Your task to perform on an android device: When is my next meeting? Image 0: 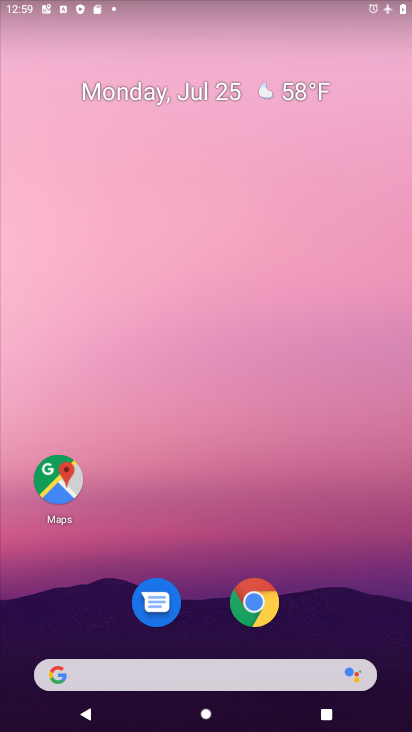
Step 0: drag from (191, 449) to (165, 10)
Your task to perform on an android device: When is my next meeting? Image 1: 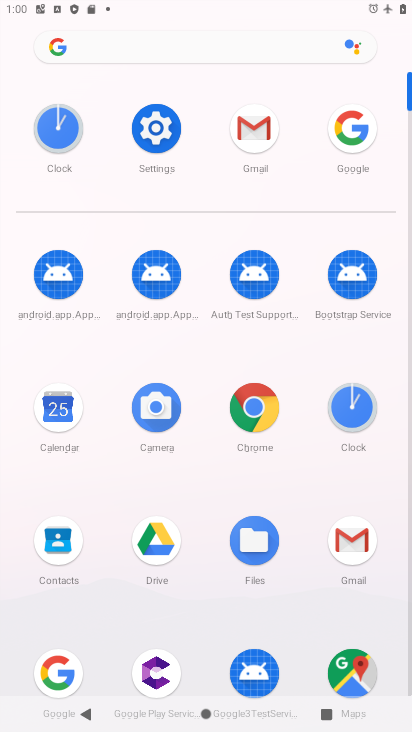
Step 1: drag from (189, 596) to (174, 288)
Your task to perform on an android device: When is my next meeting? Image 2: 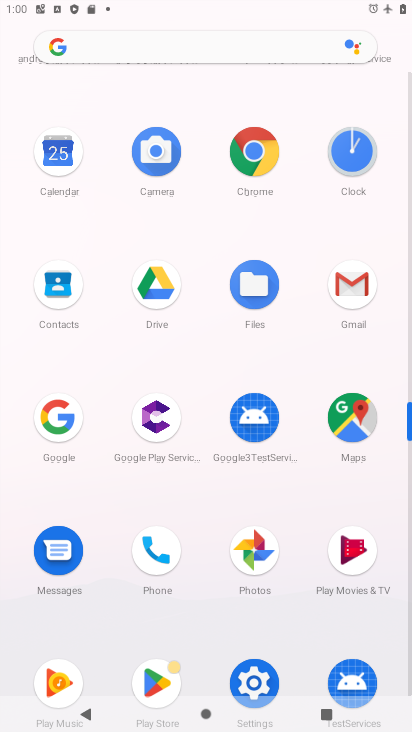
Step 2: click (45, 148)
Your task to perform on an android device: When is my next meeting? Image 3: 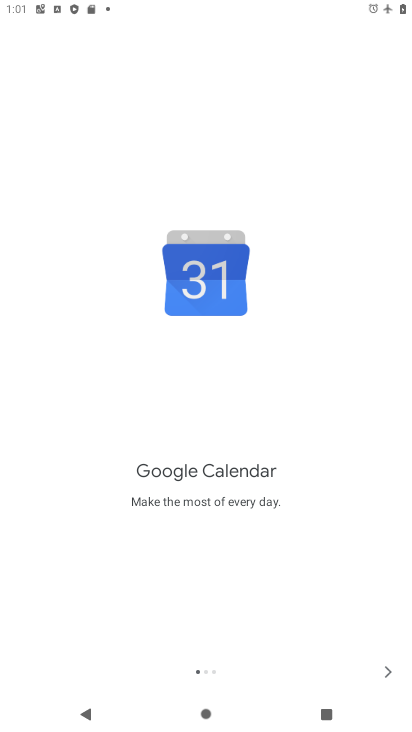
Step 3: click (376, 664)
Your task to perform on an android device: When is my next meeting? Image 4: 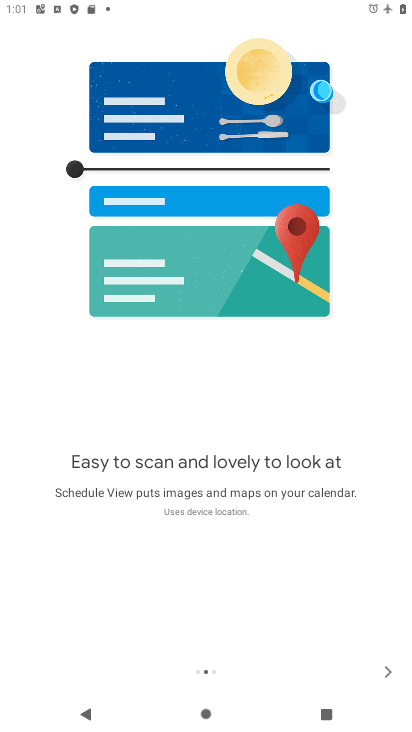
Step 4: click (389, 664)
Your task to perform on an android device: When is my next meeting? Image 5: 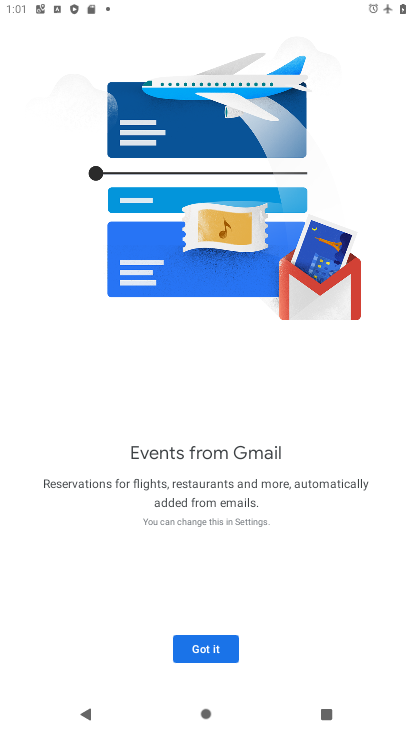
Step 5: click (220, 649)
Your task to perform on an android device: When is my next meeting? Image 6: 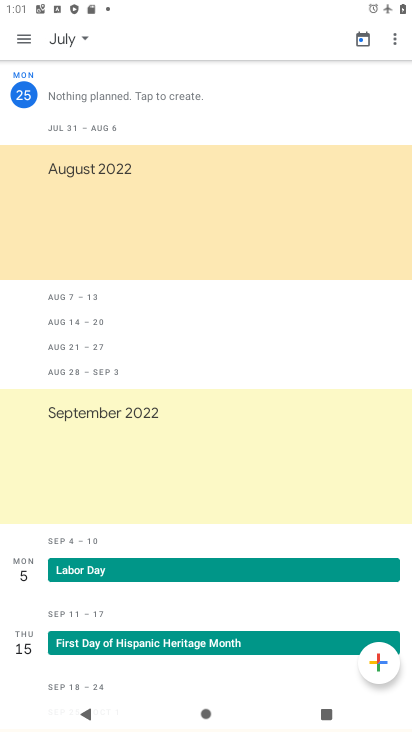
Step 6: click (81, 54)
Your task to perform on an android device: When is my next meeting? Image 7: 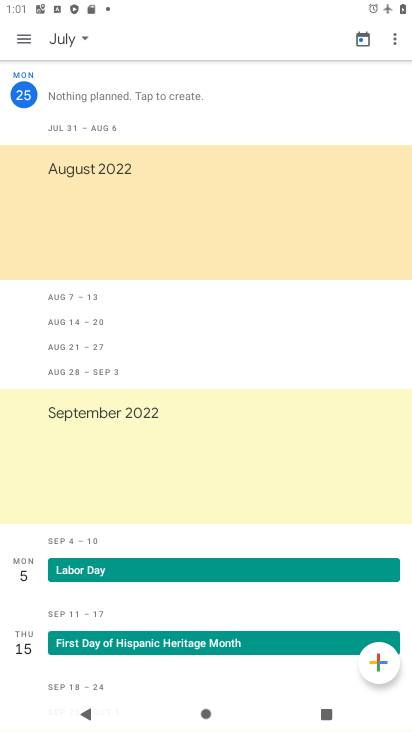
Step 7: click (84, 36)
Your task to perform on an android device: When is my next meeting? Image 8: 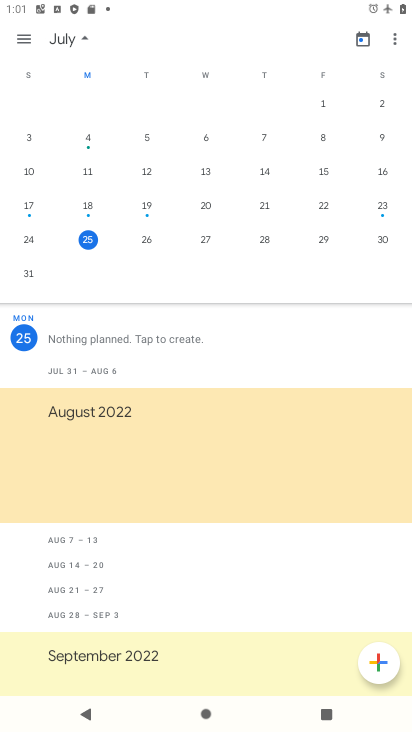
Step 8: click (206, 245)
Your task to perform on an android device: When is my next meeting? Image 9: 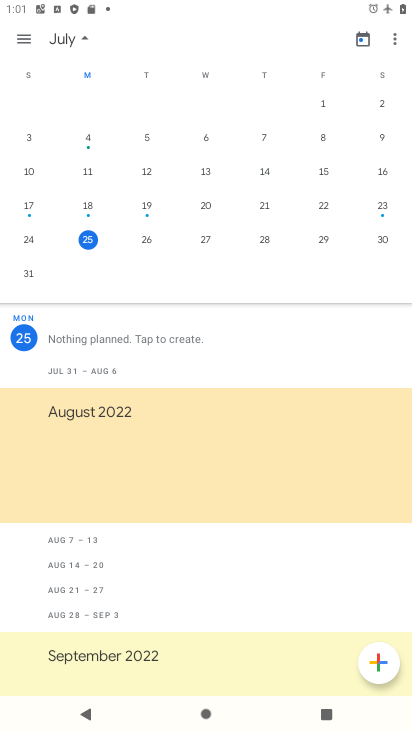
Step 9: click (227, 250)
Your task to perform on an android device: When is my next meeting? Image 10: 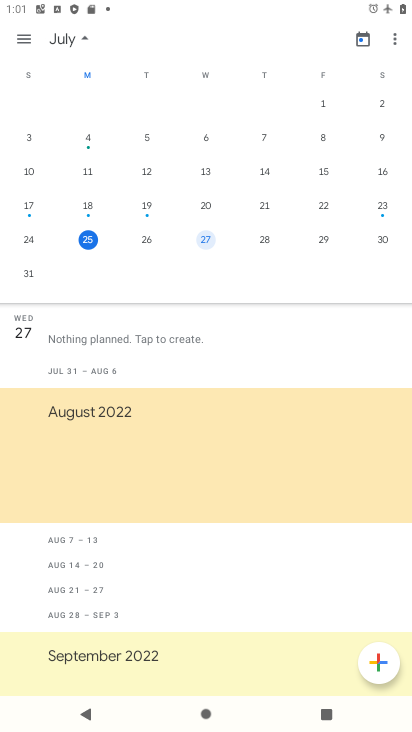
Step 10: click (181, 253)
Your task to perform on an android device: When is my next meeting? Image 11: 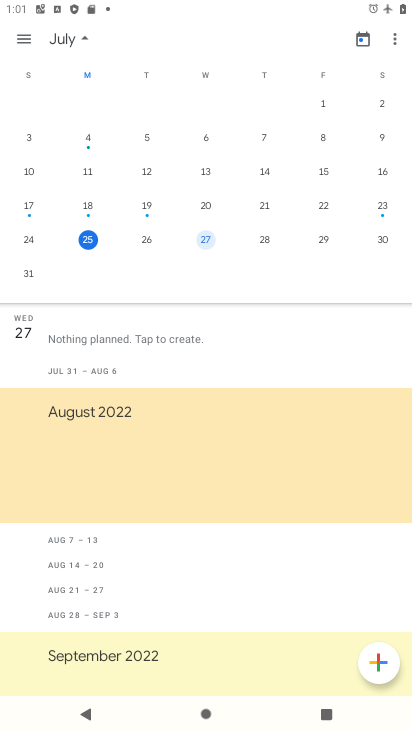
Step 11: task complete